Your task to perform on an android device: move a message to another label in the gmail app Image 0: 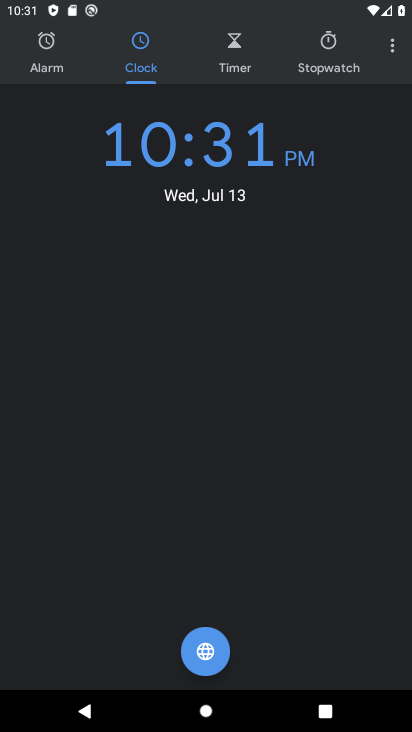
Step 0: press home button
Your task to perform on an android device: move a message to another label in the gmail app Image 1: 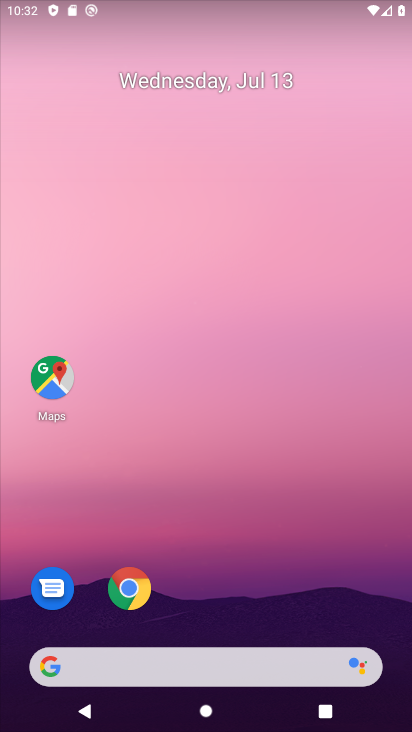
Step 1: drag from (320, 612) to (275, 168)
Your task to perform on an android device: move a message to another label in the gmail app Image 2: 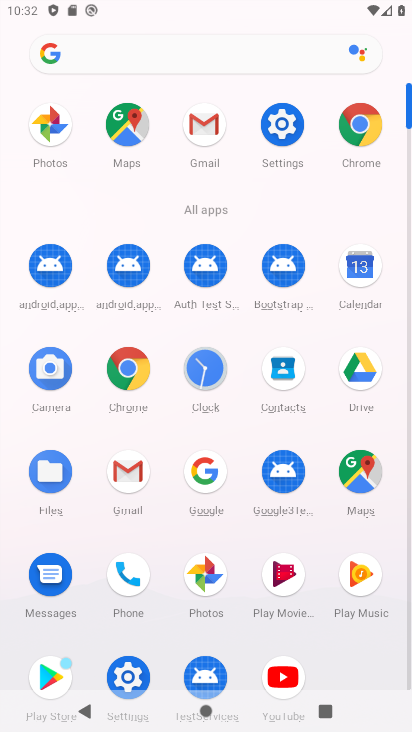
Step 2: click (201, 123)
Your task to perform on an android device: move a message to another label in the gmail app Image 3: 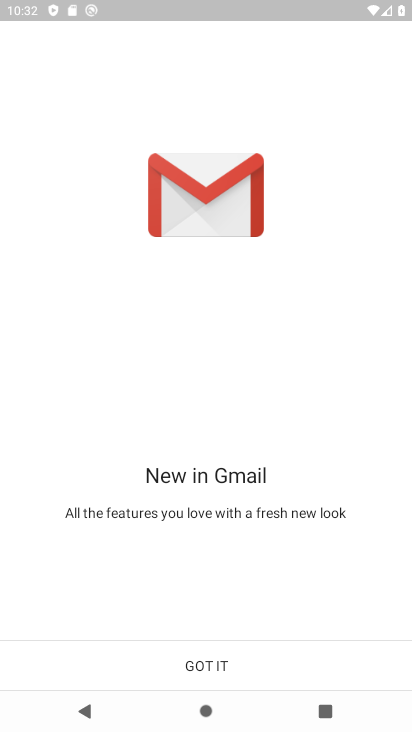
Step 3: click (214, 666)
Your task to perform on an android device: move a message to another label in the gmail app Image 4: 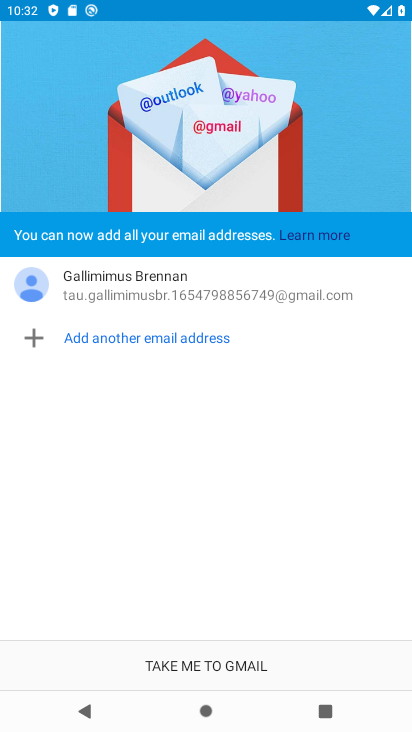
Step 4: click (214, 666)
Your task to perform on an android device: move a message to another label in the gmail app Image 5: 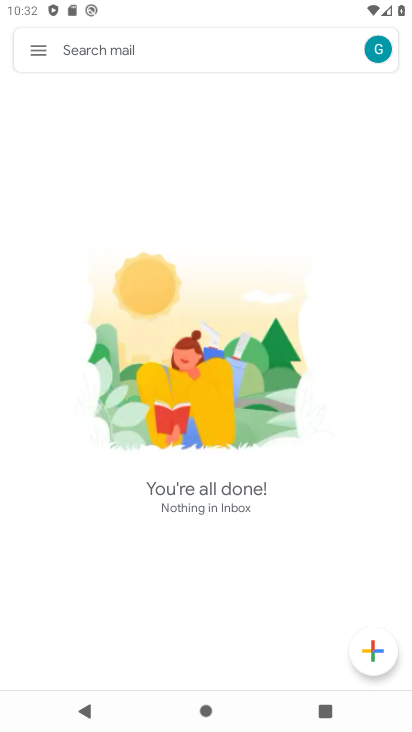
Step 5: task complete